Your task to perform on an android device: change timer sound Image 0: 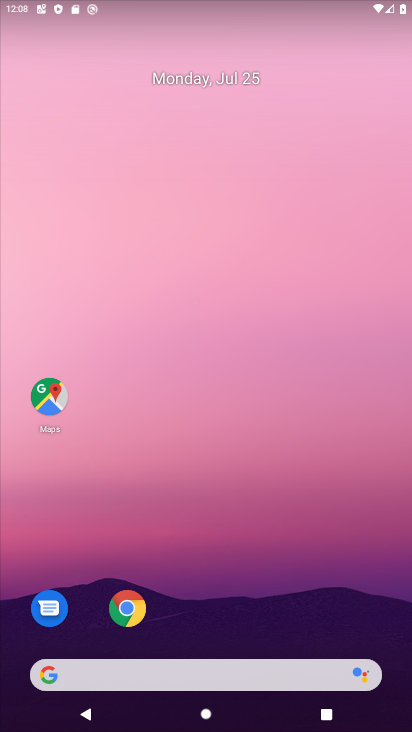
Step 0: drag from (207, 635) to (215, 15)
Your task to perform on an android device: change timer sound Image 1: 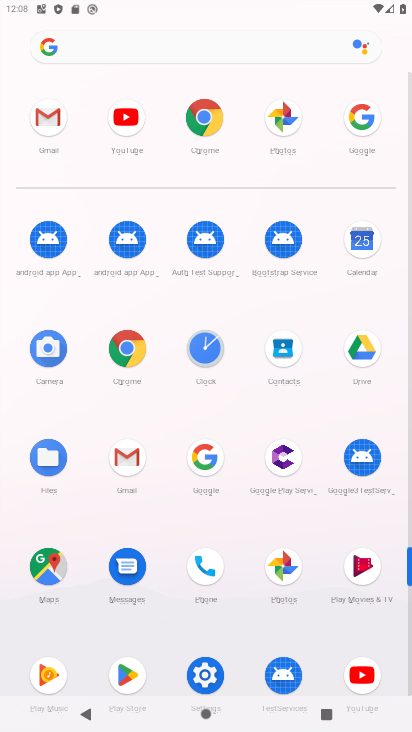
Step 1: click (208, 340)
Your task to perform on an android device: change timer sound Image 2: 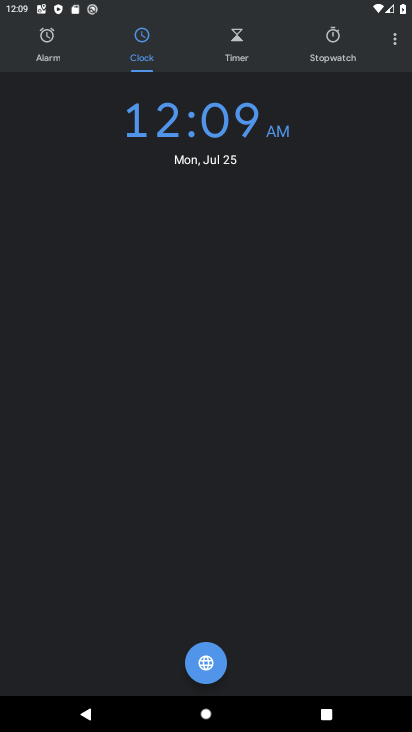
Step 2: click (397, 40)
Your task to perform on an android device: change timer sound Image 3: 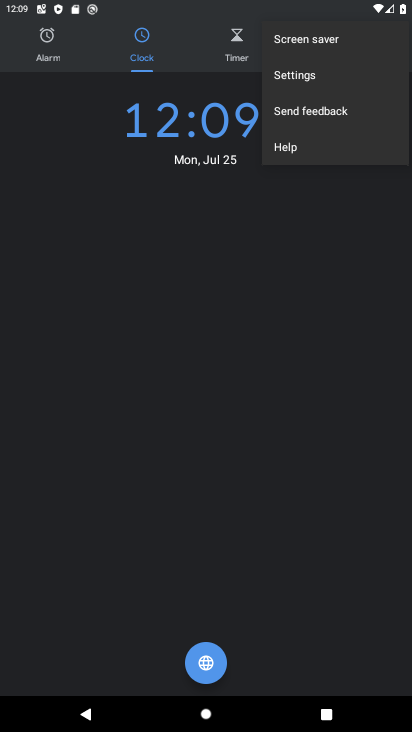
Step 3: click (289, 79)
Your task to perform on an android device: change timer sound Image 4: 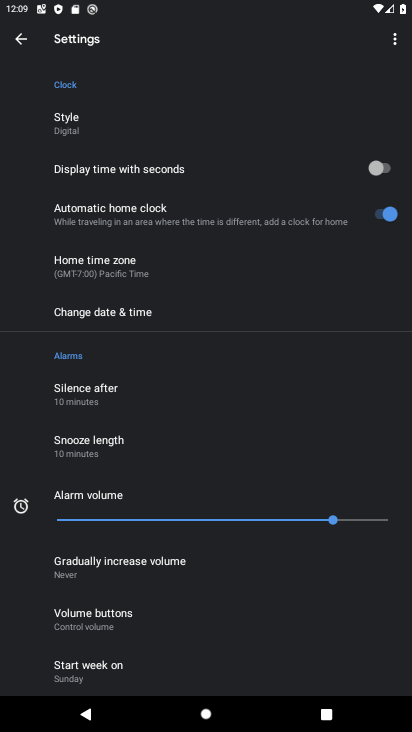
Step 4: drag from (101, 623) to (107, 420)
Your task to perform on an android device: change timer sound Image 5: 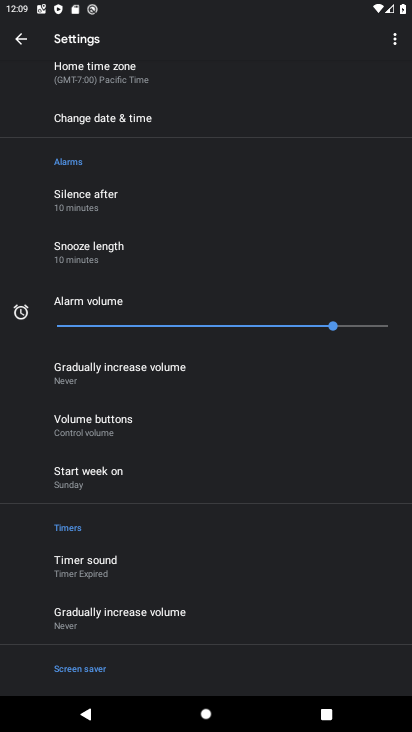
Step 5: click (86, 557)
Your task to perform on an android device: change timer sound Image 6: 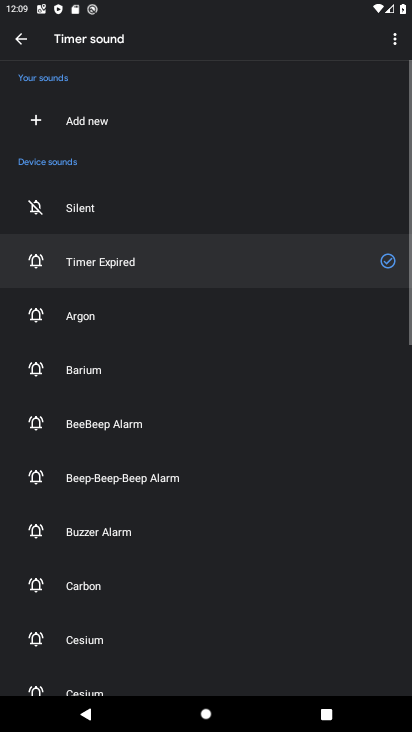
Step 6: click (80, 322)
Your task to perform on an android device: change timer sound Image 7: 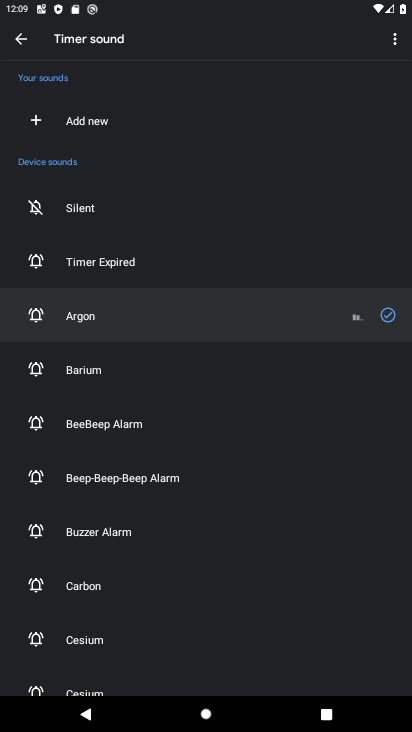
Step 7: task complete